Your task to perform on an android device: What's the weather? Image 0: 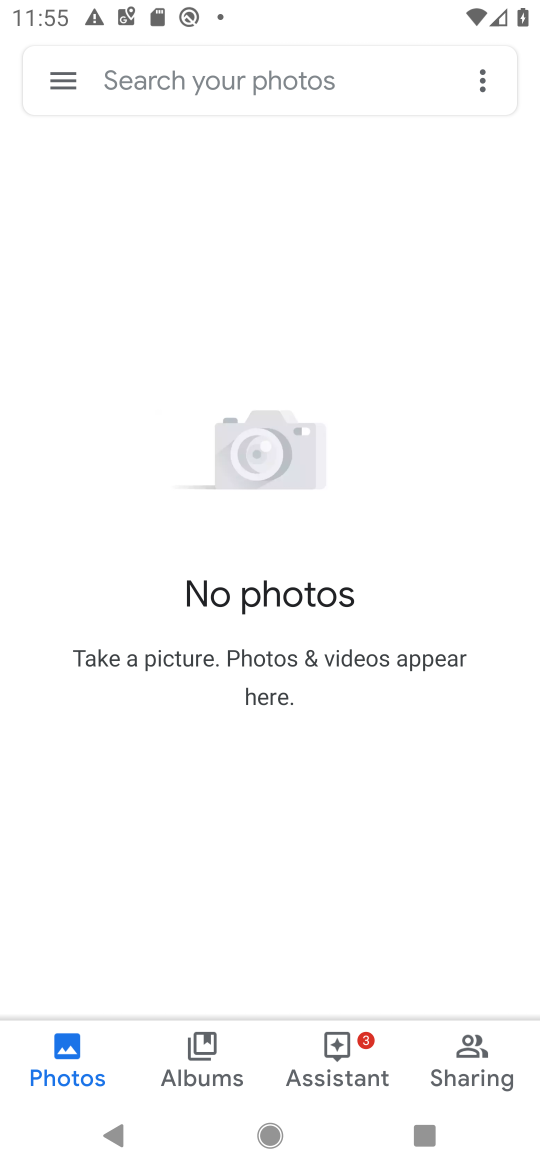
Step 0: press home button
Your task to perform on an android device: What's the weather? Image 1: 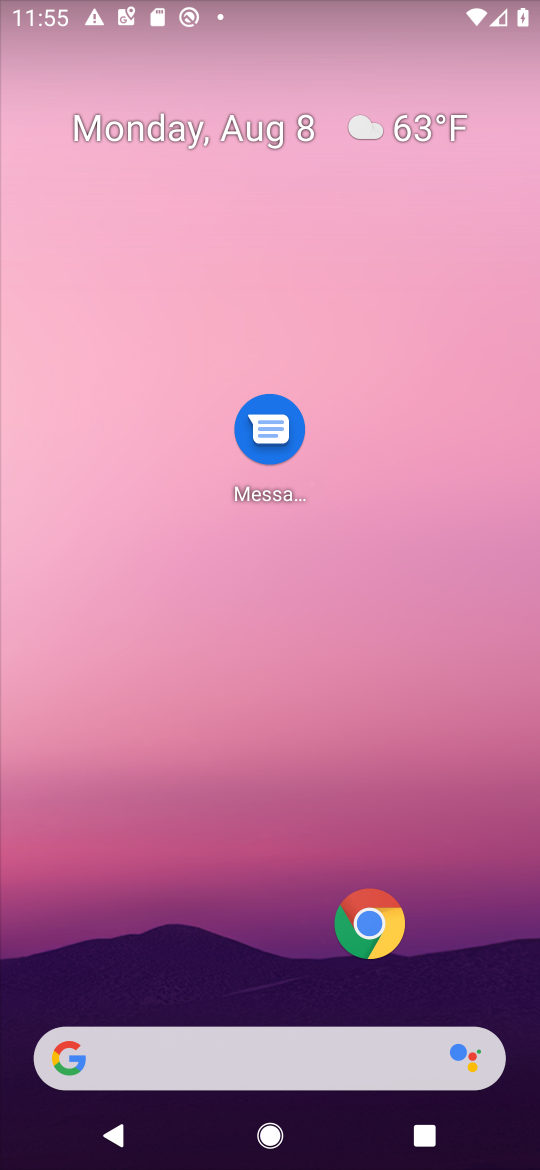
Step 1: click (120, 1060)
Your task to perform on an android device: What's the weather? Image 2: 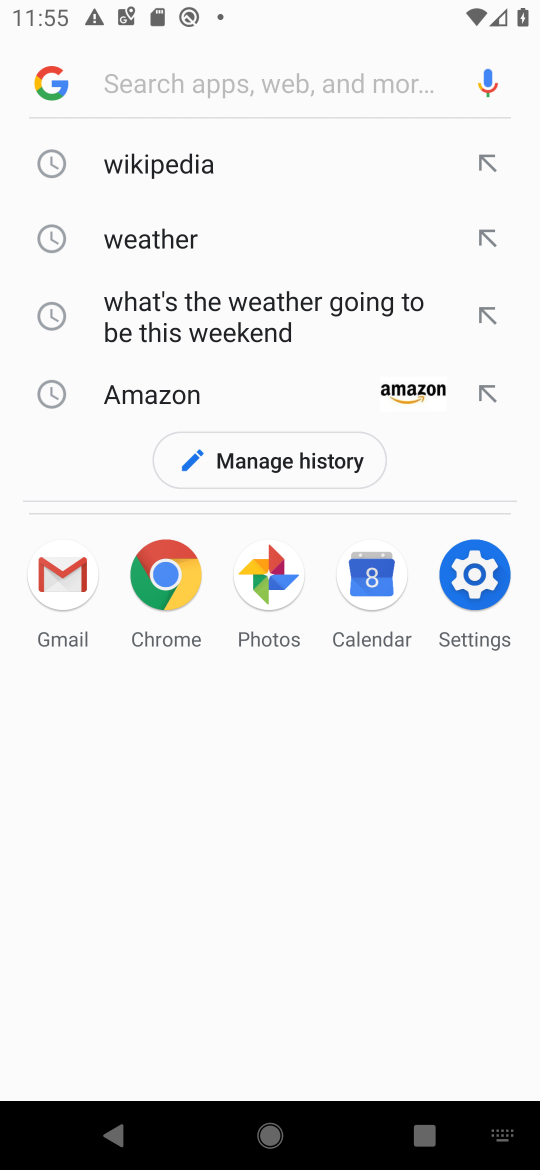
Step 2: type "What's the weather?"
Your task to perform on an android device: What's the weather? Image 3: 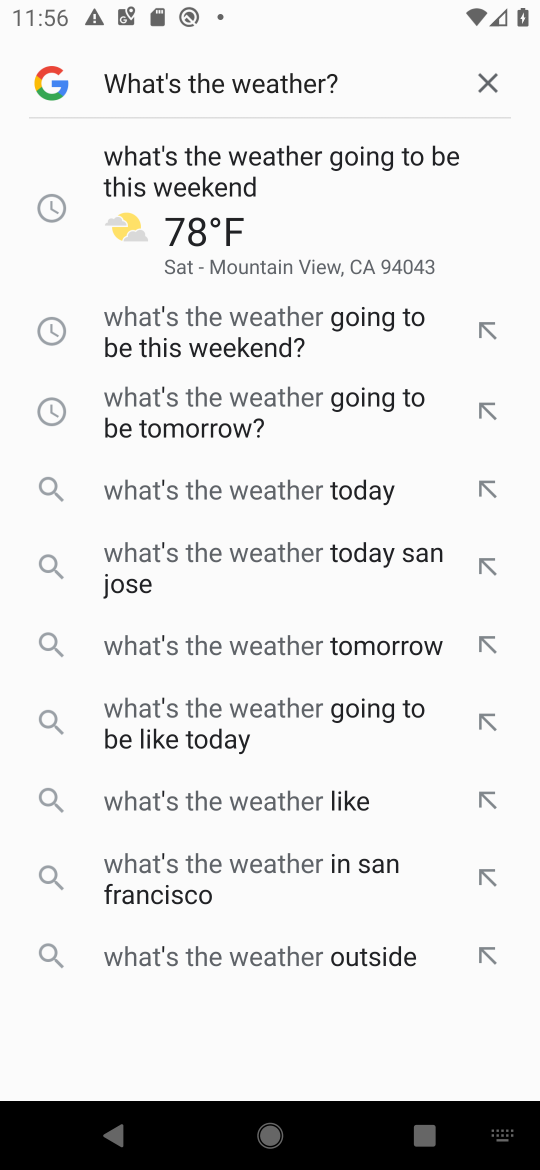
Step 3: task complete